Your task to perform on an android device: Go to location settings Image 0: 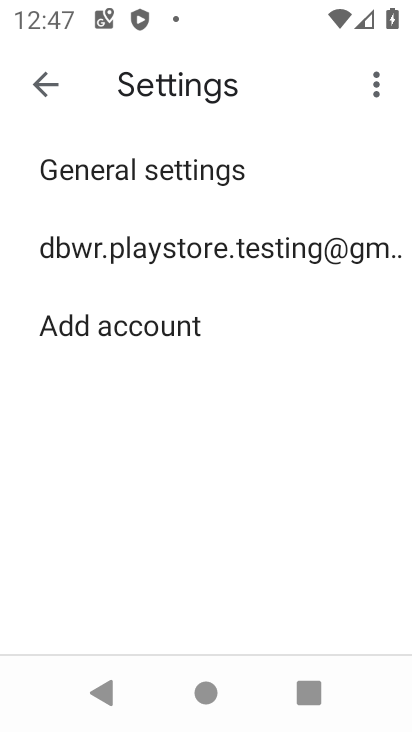
Step 0: press home button
Your task to perform on an android device: Go to location settings Image 1: 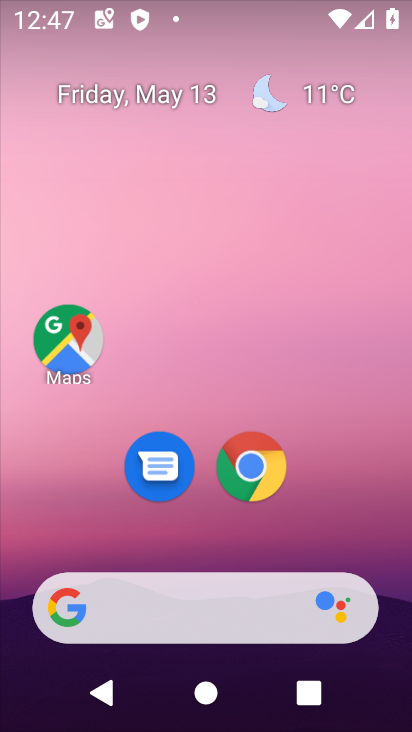
Step 1: drag from (225, 550) to (245, 8)
Your task to perform on an android device: Go to location settings Image 2: 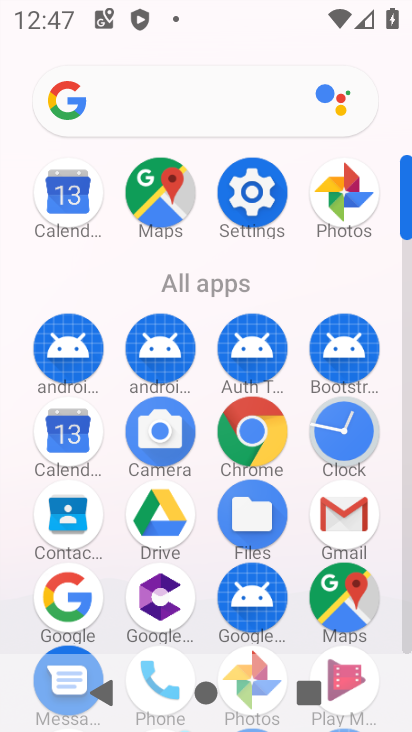
Step 2: click (243, 199)
Your task to perform on an android device: Go to location settings Image 3: 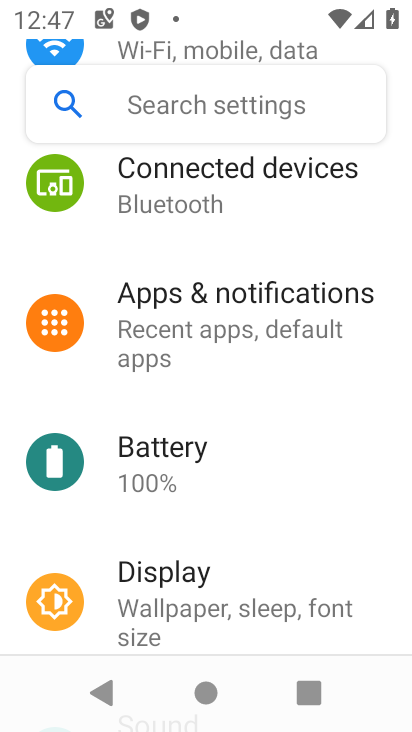
Step 3: drag from (175, 620) to (121, 428)
Your task to perform on an android device: Go to location settings Image 4: 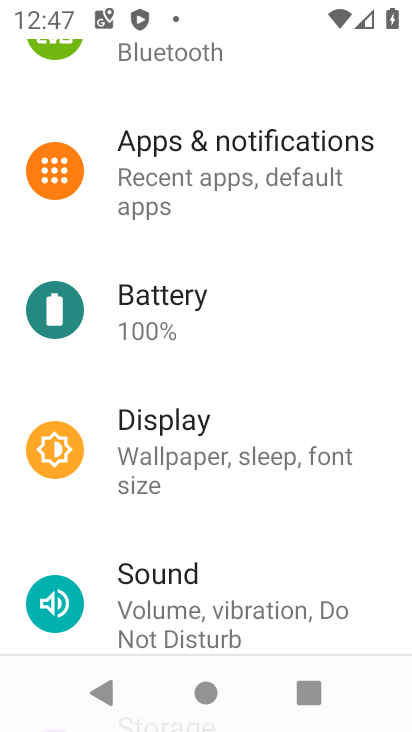
Step 4: drag from (118, 450) to (163, 111)
Your task to perform on an android device: Go to location settings Image 5: 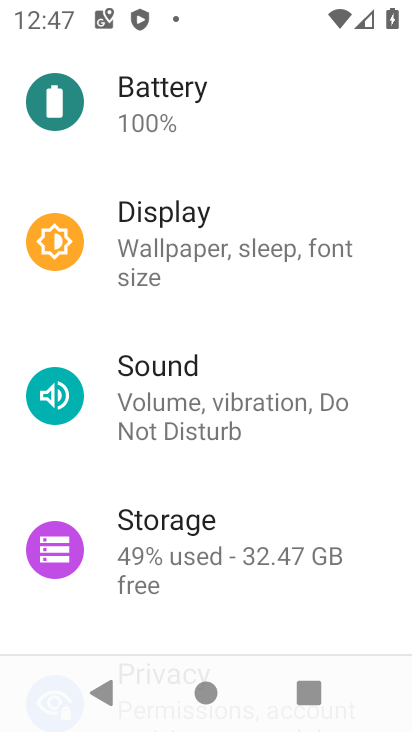
Step 5: drag from (223, 517) to (248, 288)
Your task to perform on an android device: Go to location settings Image 6: 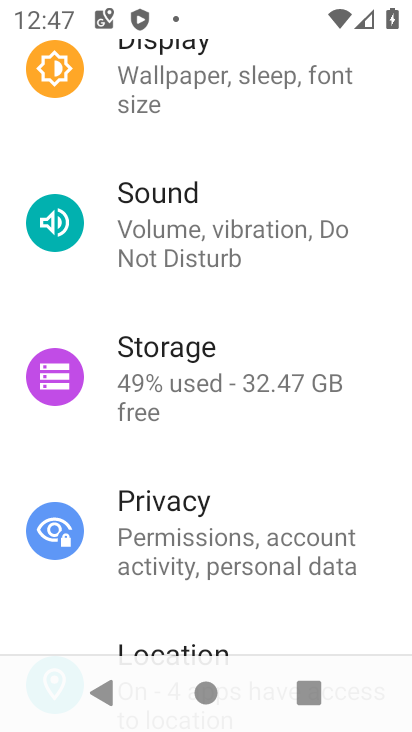
Step 6: drag from (275, 540) to (283, 111)
Your task to perform on an android device: Go to location settings Image 7: 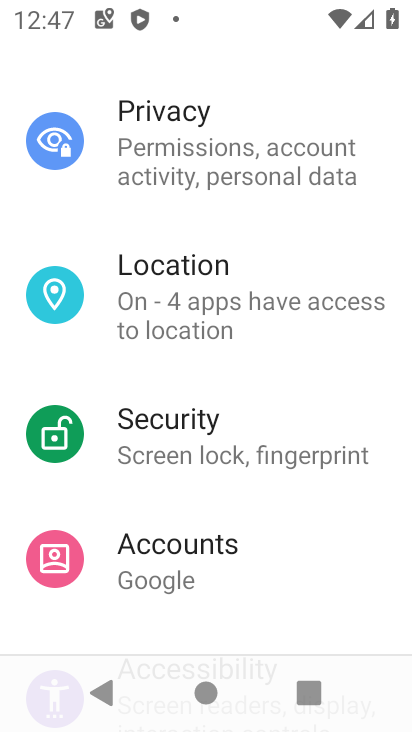
Step 7: click (202, 311)
Your task to perform on an android device: Go to location settings Image 8: 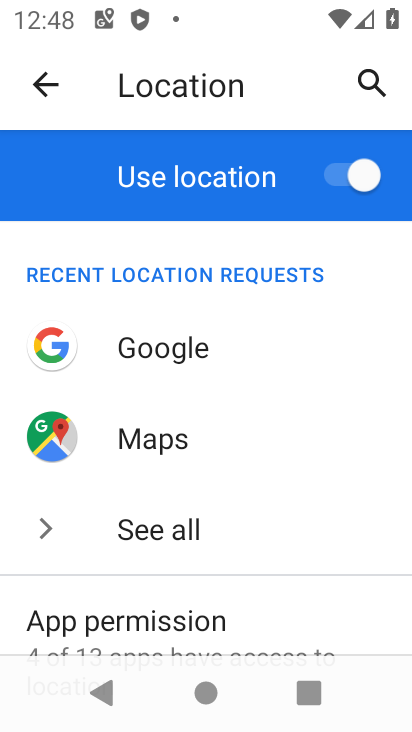
Step 8: task complete